Your task to perform on an android device: Open Maps and search for coffee Image 0: 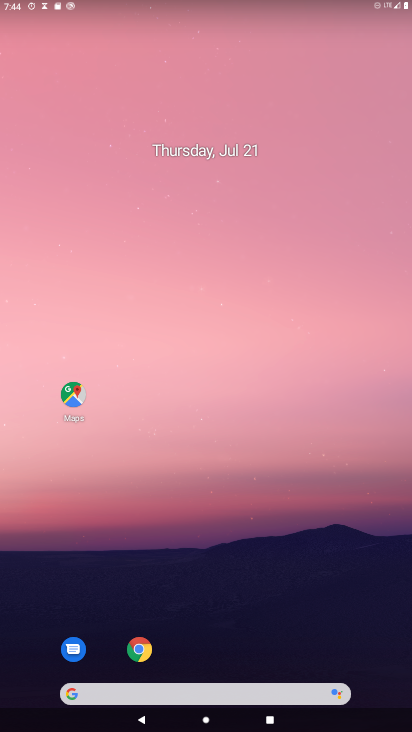
Step 0: drag from (323, 613) to (175, 16)
Your task to perform on an android device: Open Maps and search for coffee Image 1: 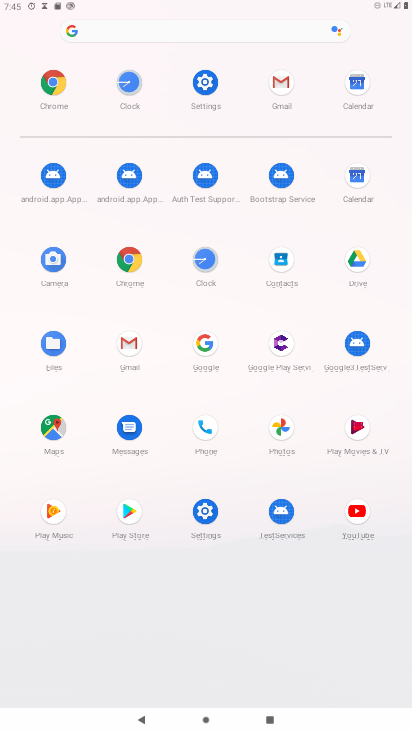
Step 1: click (53, 426)
Your task to perform on an android device: Open Maps and search for coffee Image 2: 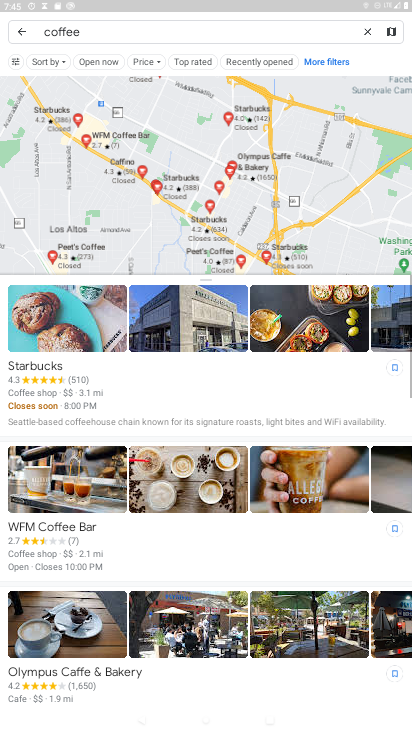
Step 2: task complete